Your task to perform on an android device: open app "Cash App" (install if not already installed) Image 0: 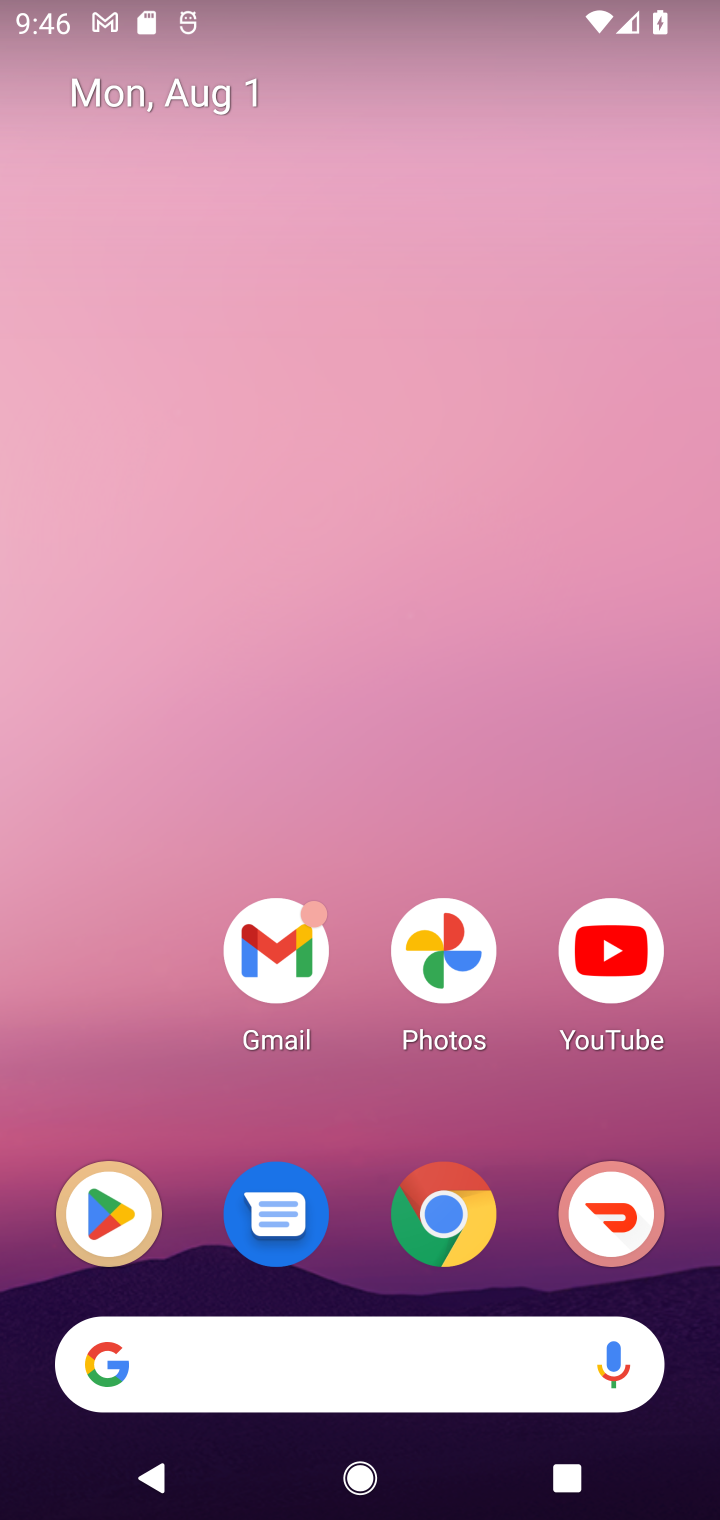
Step 0: press home button
Your task to perform on an android device: open app "Cash App" (install if not already installed) Image 1: 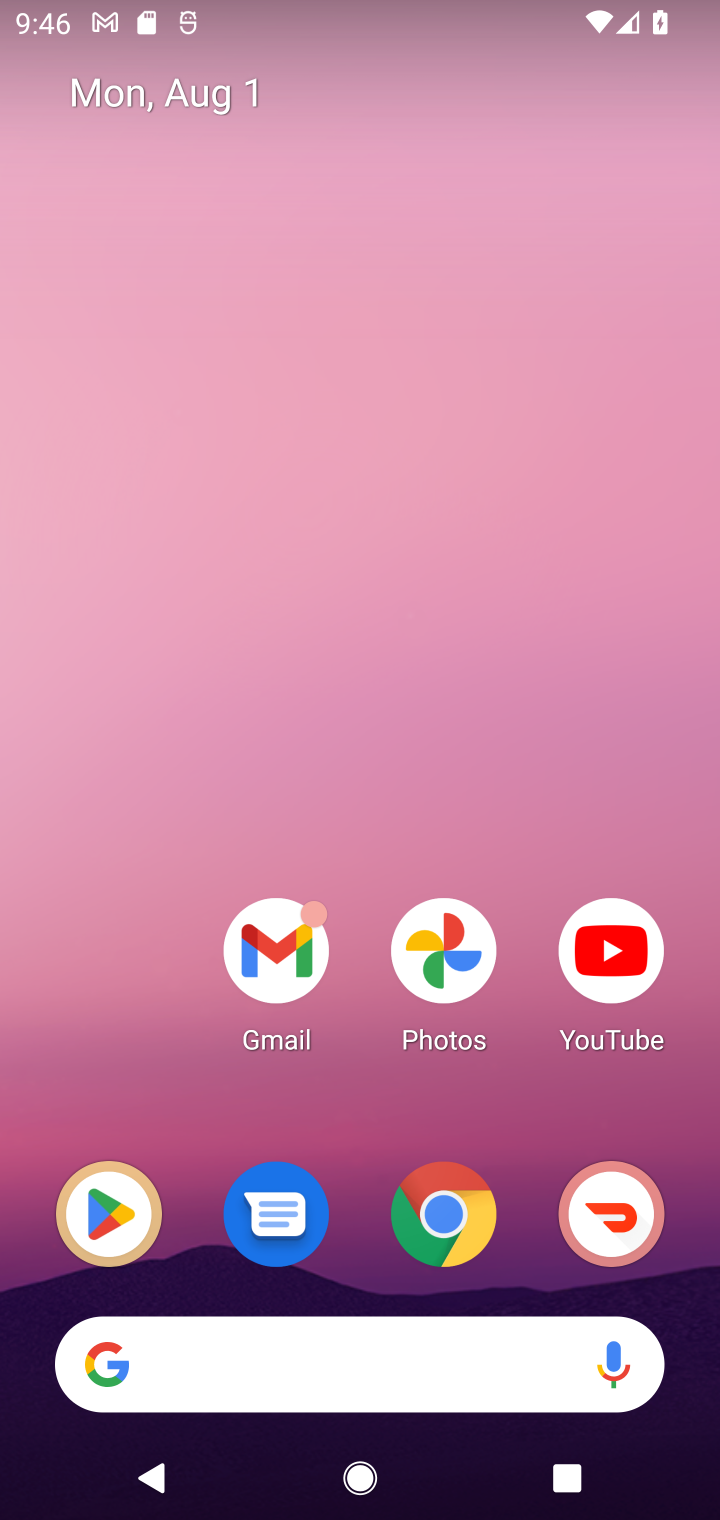
Step 1: click (86, 1206)
Your task to perform on an android device: open app "Cash App" (install if not already installed) Image 2: 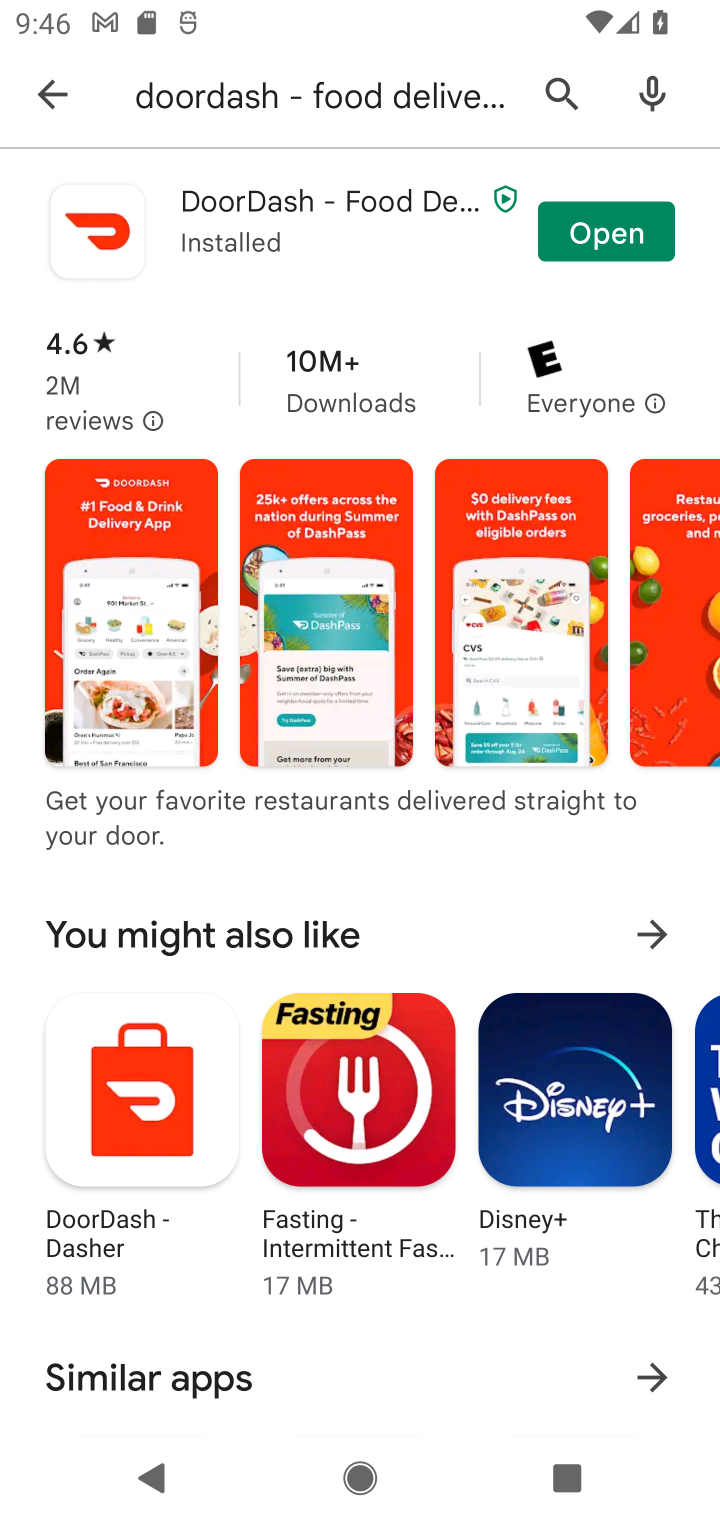
Step 2: click (562, 86)
Your task to perform on an android device: open app "Cash App" (install if not already installed) Image 3: 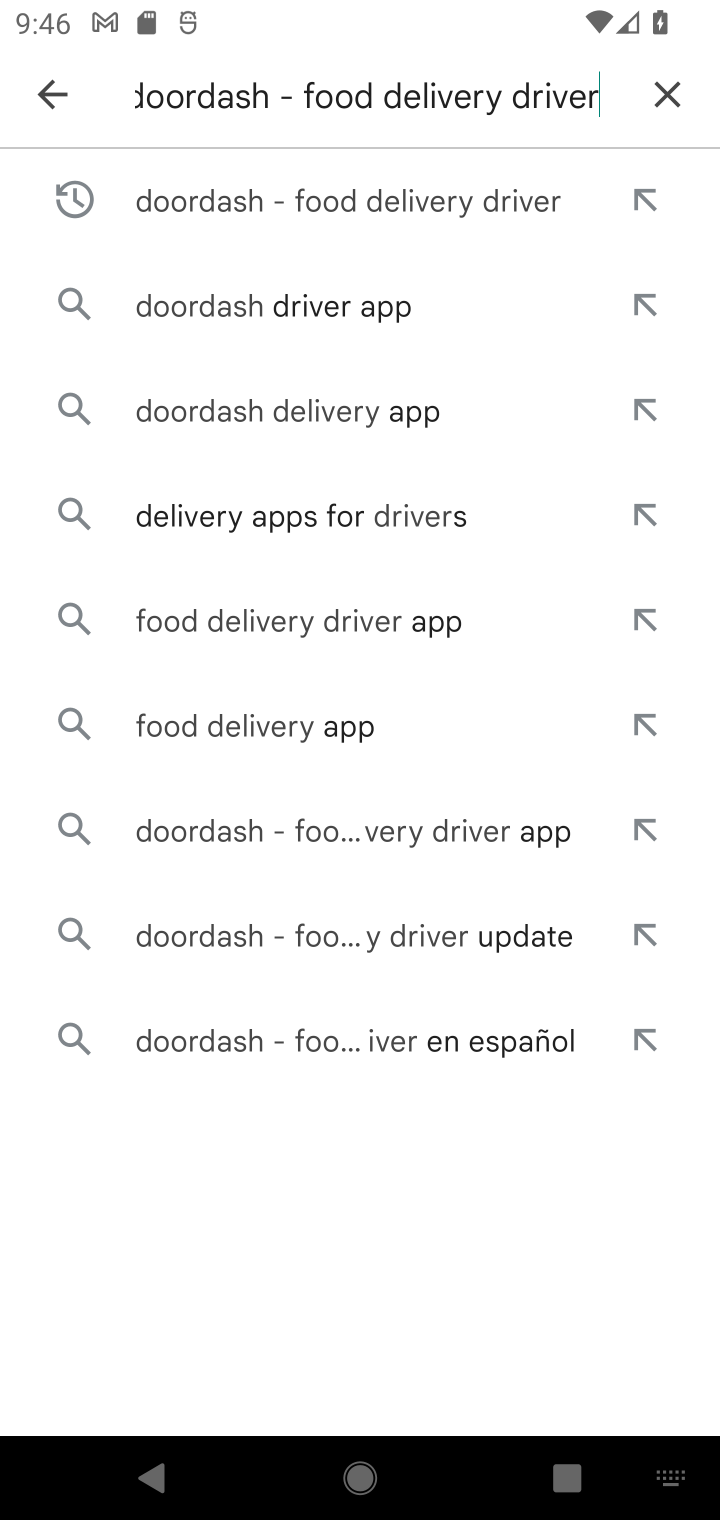
Step 3: click (658, 86)
Your task to perform on an android device: open app "Cash App" (install if not already installed) Image 4: 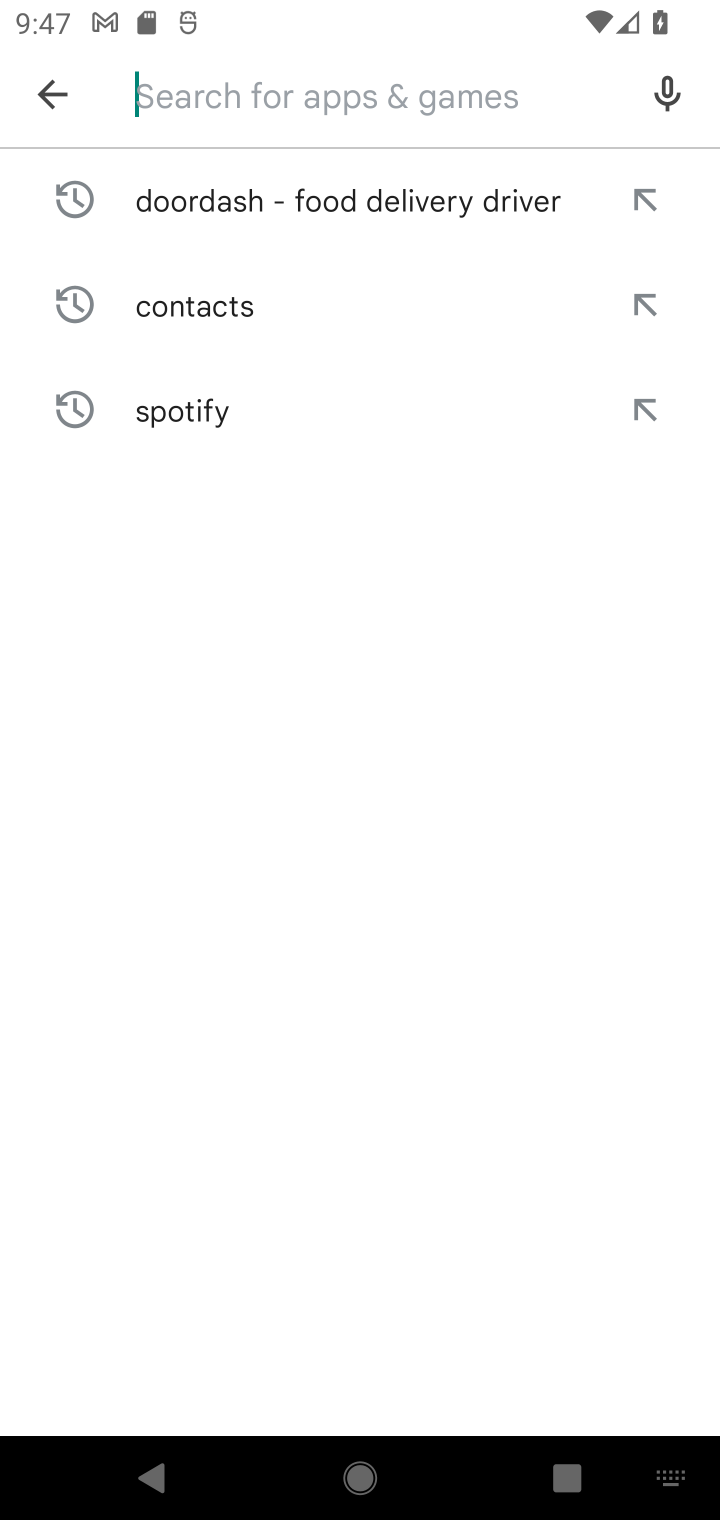
Step 4: type "Cash App"
Your task to perform on an android device: open app "Cash App" (install if not already installed) Image 5: 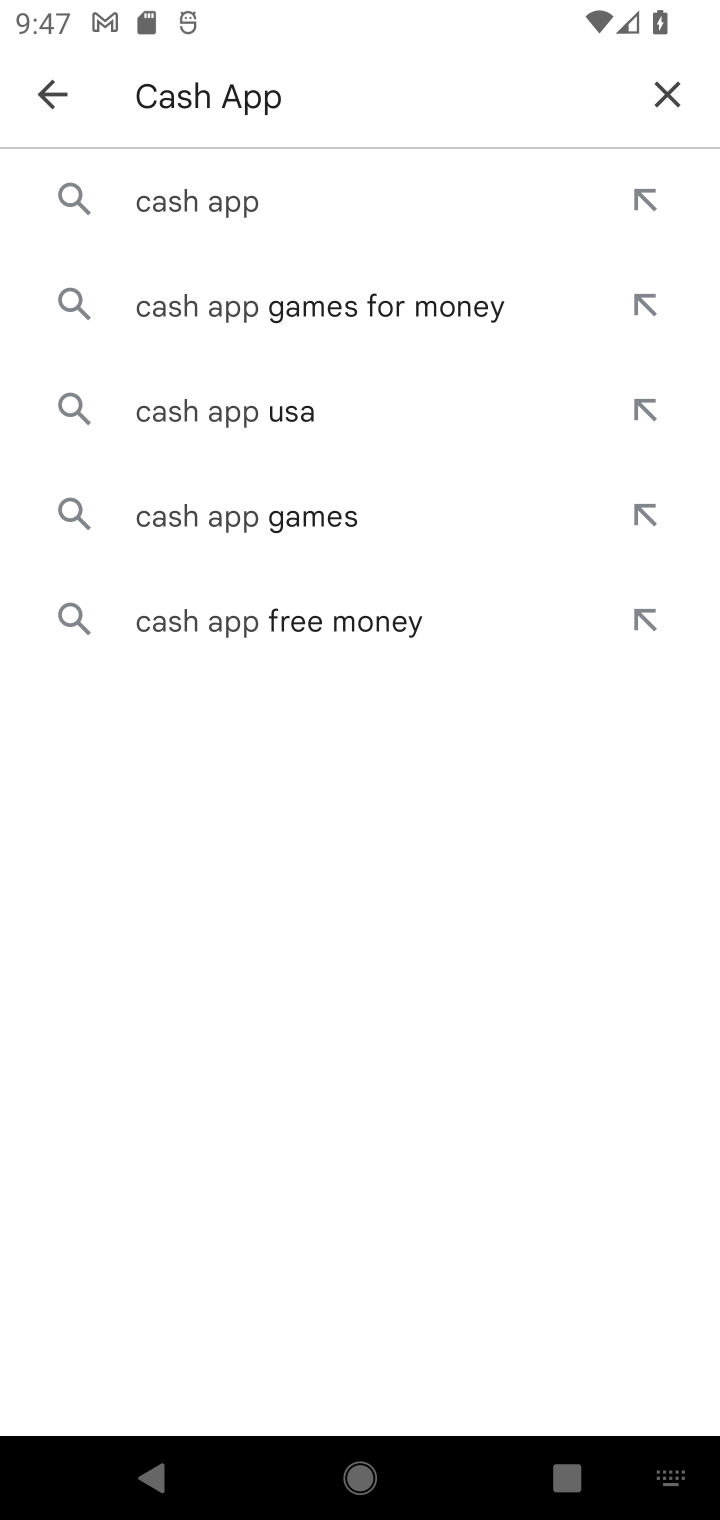
Step 5: click (196, 188)
Your task to perform on an android device: open app "Cash App" (install if not already installed) Image 6: 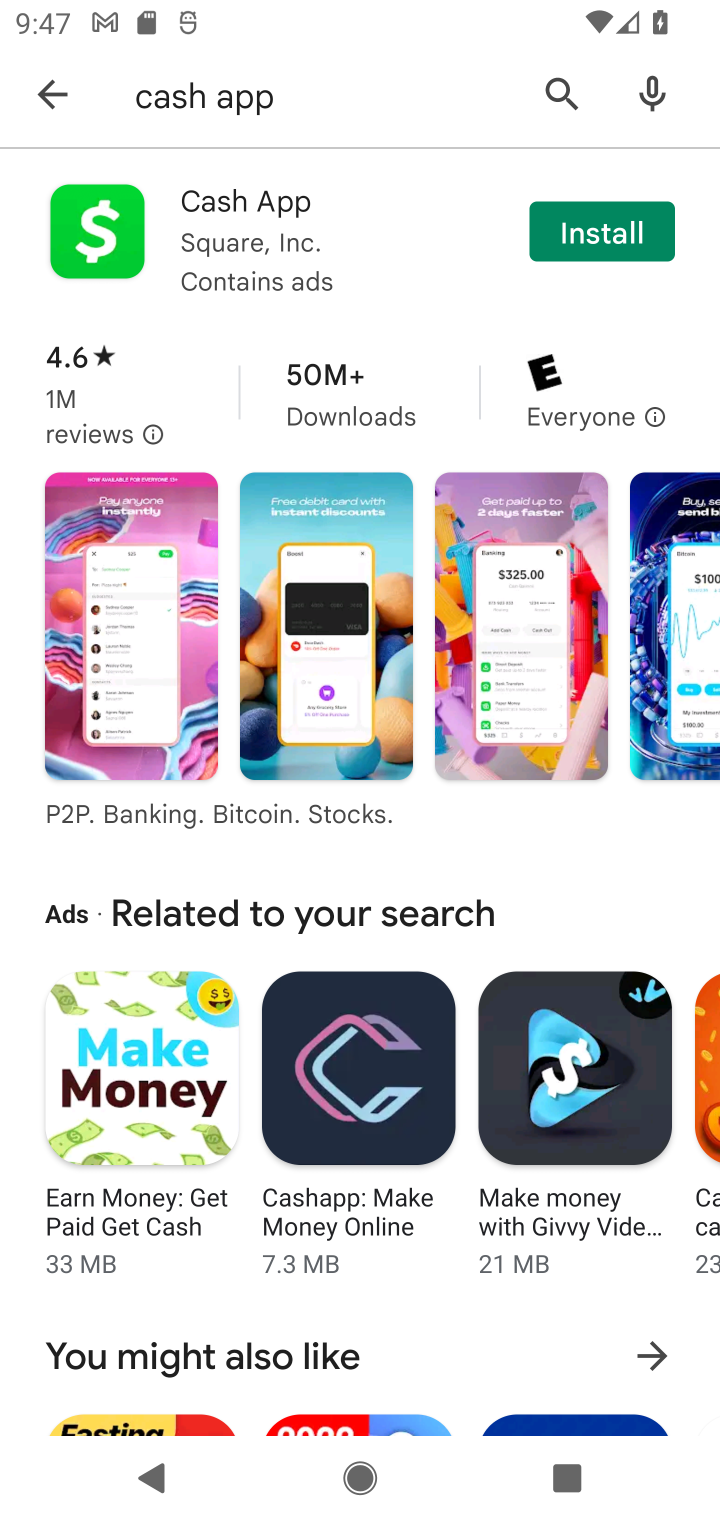
Step 6: click (615, 232)
Your task to perform on an android device: open app "Cash App" (install if not already installed) Image 7: 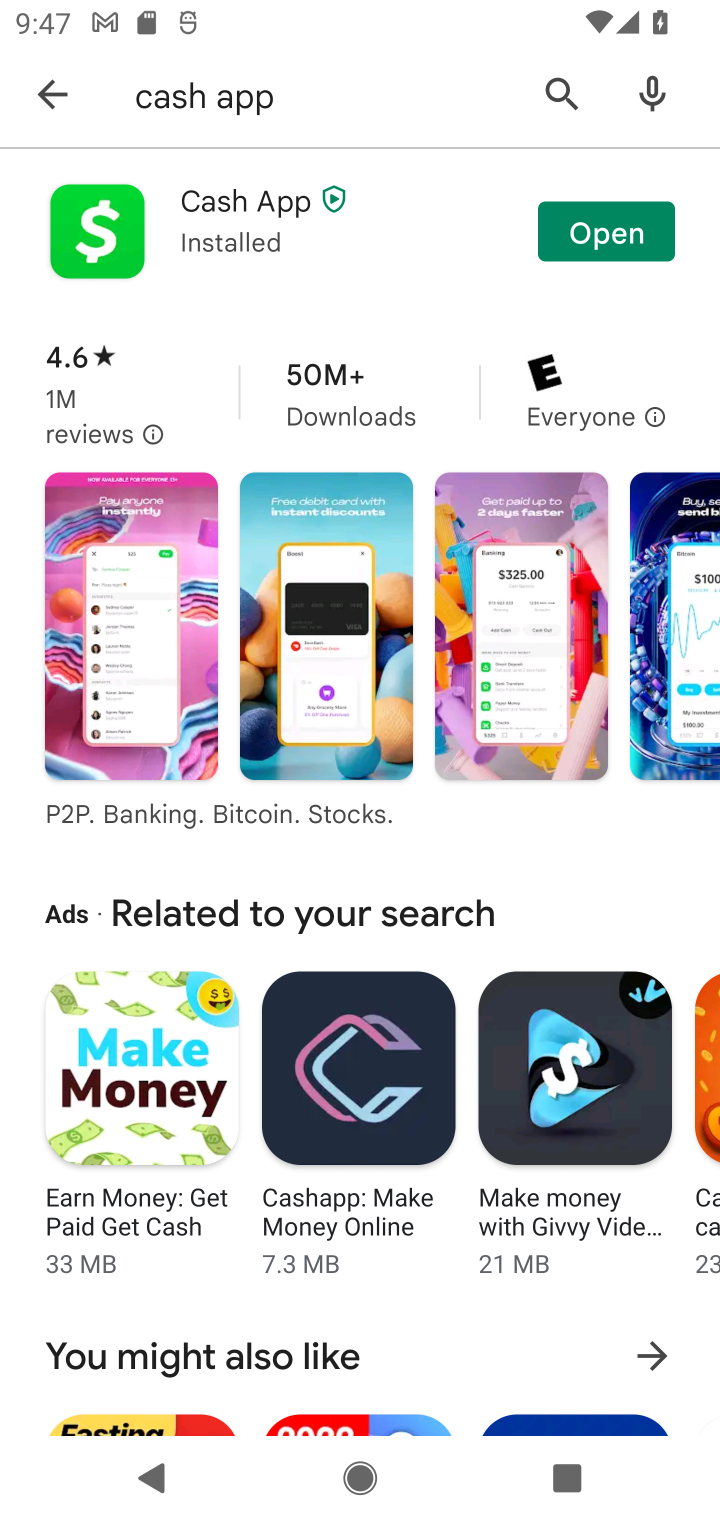
Step 7: click (593, 225)
Your task to perform on an android device: open app "Cash App" (install if not already installed) Image 8: 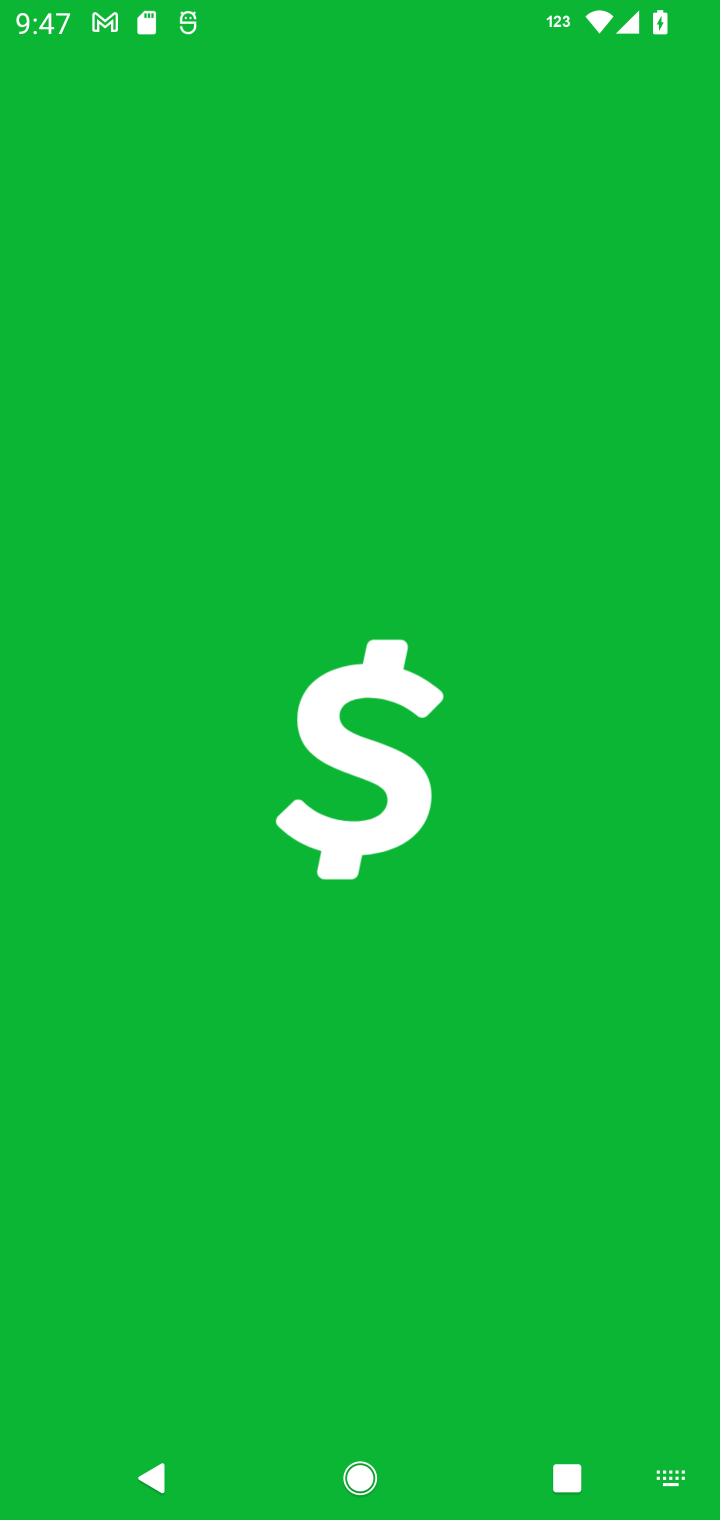
Step 8: task complete